Your task to perform on an android device: turn on javascript in the chrome app Image 0: 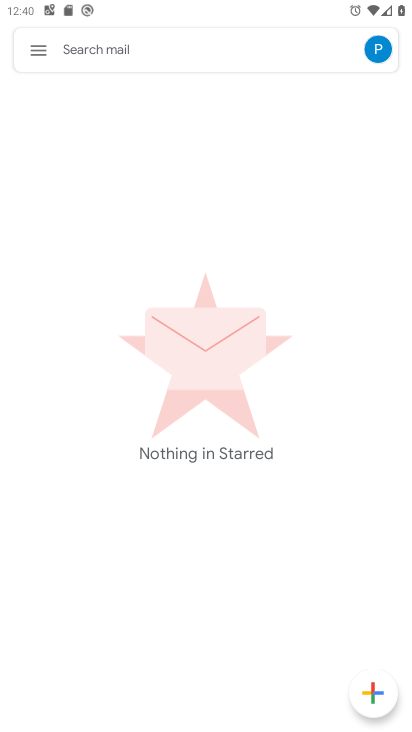
Step 0: drag from (326, 609) to (270, 373)
Your task to perform on an android device: turn on javascript in the chrome app Image 1: 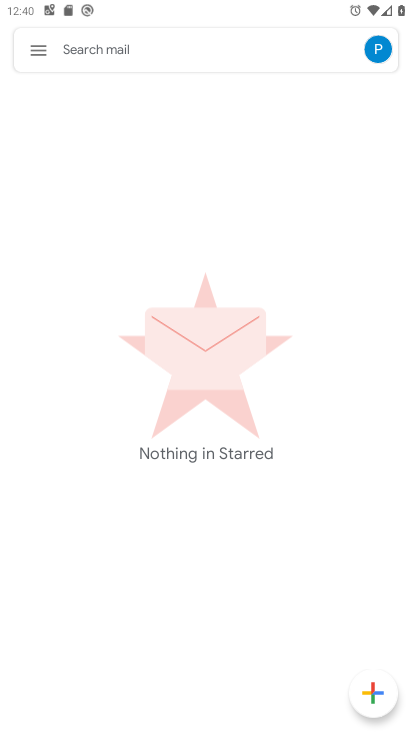
Step 1: press home button
Your task to perform on an android device: turn on javascript in the chrome app Image 2: 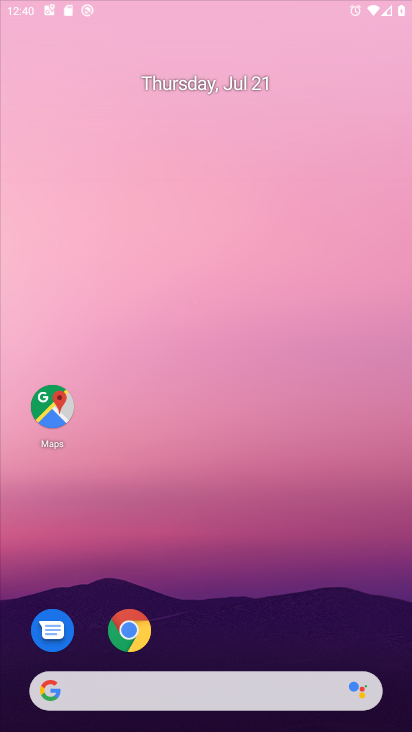
Step 2: drag from (177, 666) to (244, 268)
Your task to perform on an android device: turn on javascript in the chrome app Image 3: 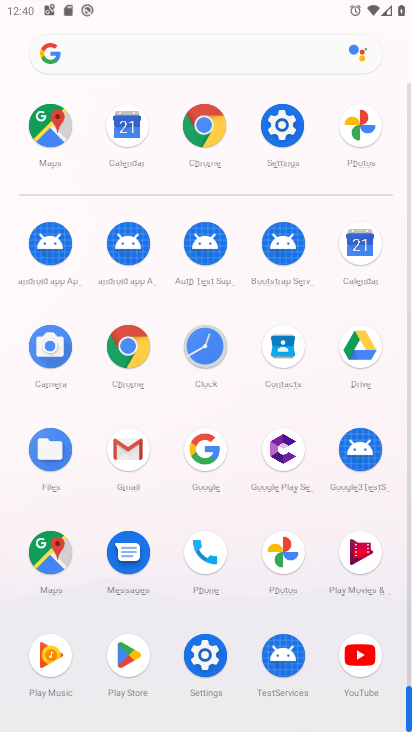
Step 3: click (206, 123)
Your task to perform on an android device: turn on javascript in the chrome app Image 4: 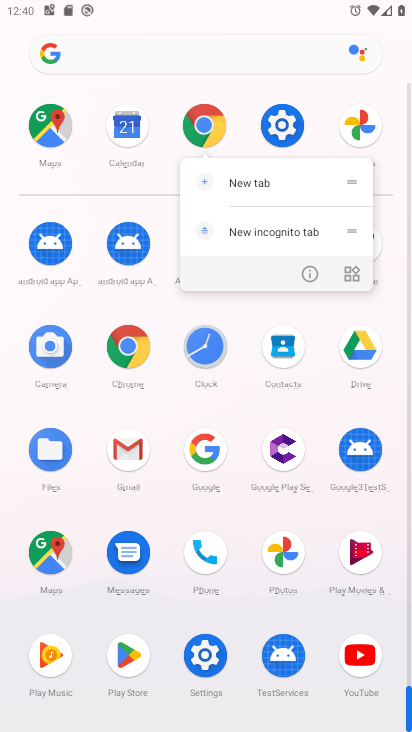
Step 4: click (311, 271)
Your task to perform on an android device: turn on javascript in the chrome app Image 5: 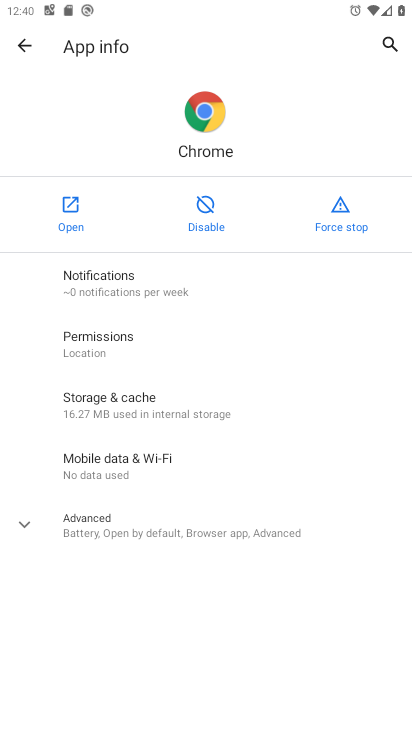
Step 5: click (82, 204)
Your task to perform on an android device: turn on javascript in the chrome app Image 6: 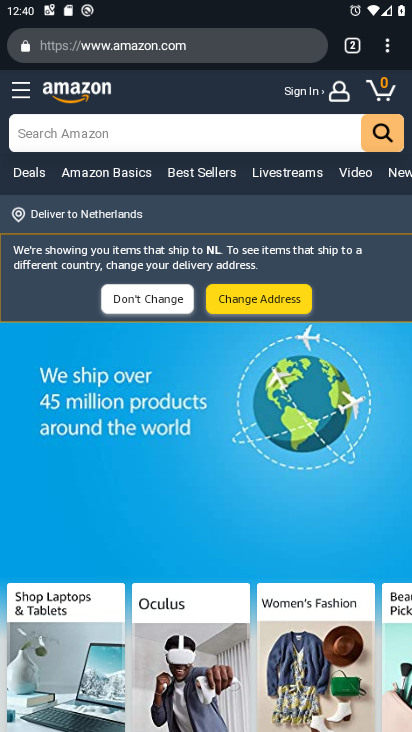
Step 6: drag from (388, 48) to (244, 561)
Your task to perform on an android device: turn on javascript in the chrome app Image 7: 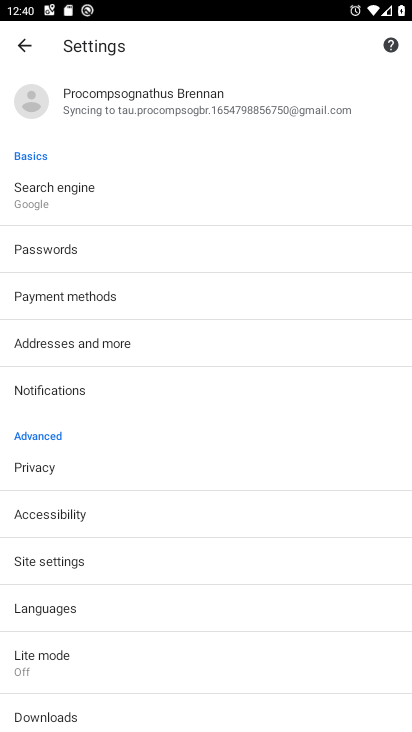
Step 7: drag from (186, 529) to (256, 170)
Your task to perform on an android device: turn on javascript in the chrome app Image 8: 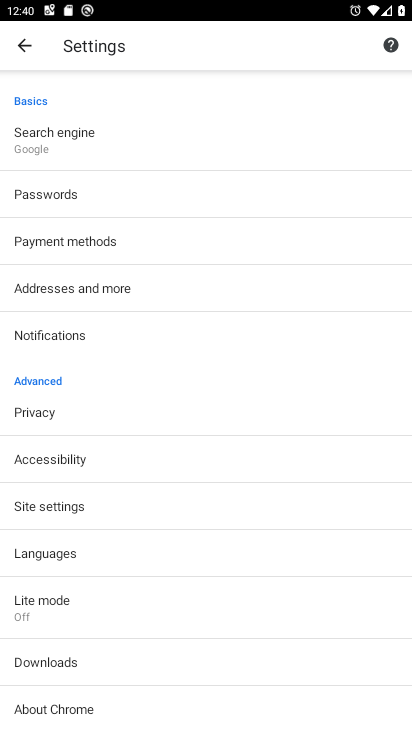
Step 8: drag from (220, 558) to (297, 175)
Your task to perform on an android device: turn on javascript in the chrome app Image 9: 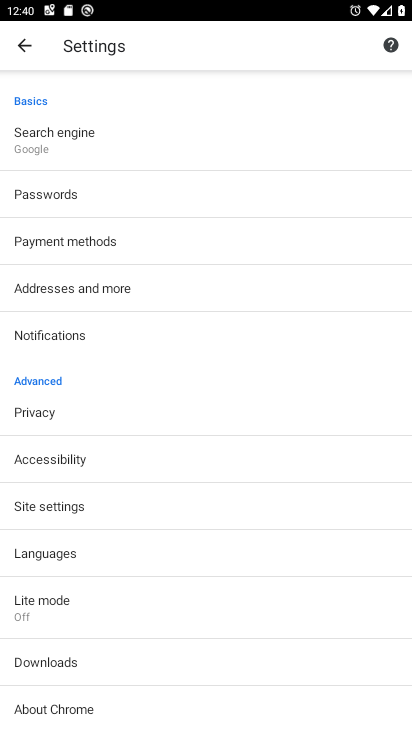
Step 9: click (74, 501)
Your task to perform on an android device: turn on javascript in the chrome app Image 10: 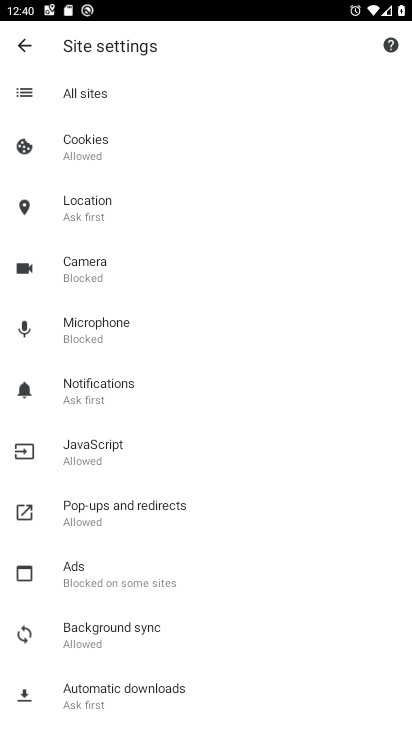
Step 10: click (117, 464)
Your task to perform on an android device: turn on javascript in the chrome app Image 11: 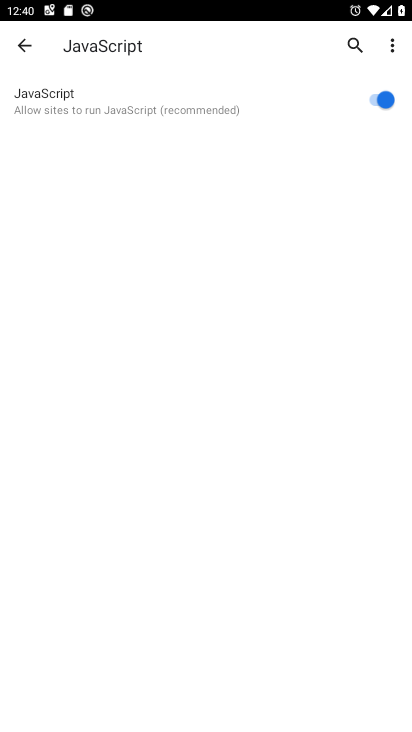
Step 11: task complete